Your task to perform on an android device: Go to Google maps Image 0: 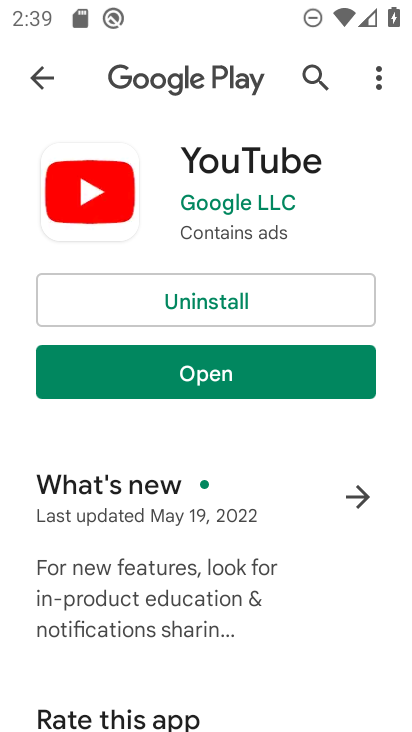
Step 0: press home button
Your task to perform on an android device: Go to Google maps Image 1: 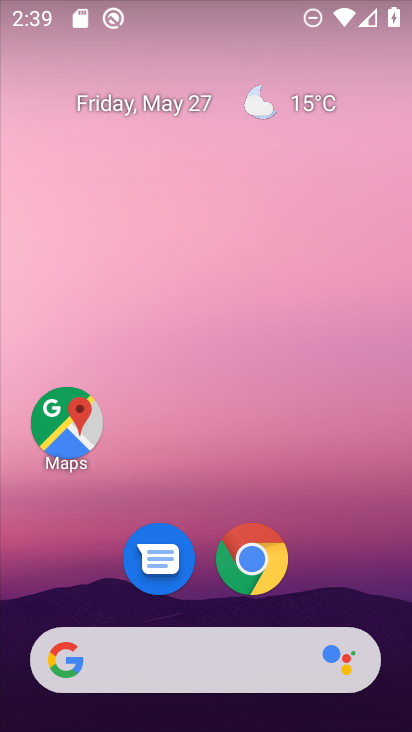
Step 1: drag from (258, 699) to (245, 59)
Your task to perform on an android device: Go to Google maps Image 2: 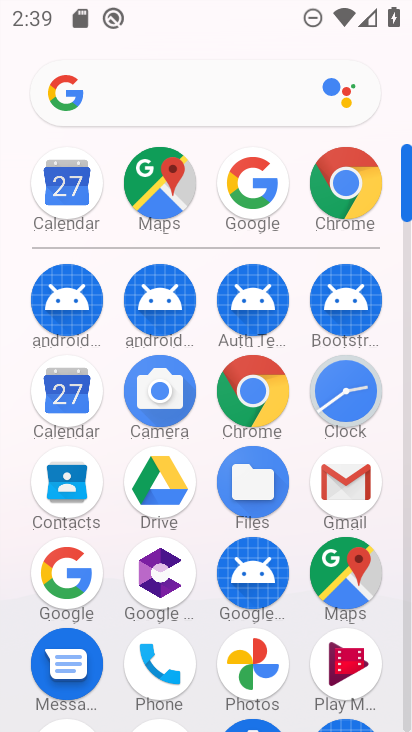
Step 2: click (356, 577)
Your task to perform on an android device: Go to Google maps Image 3: 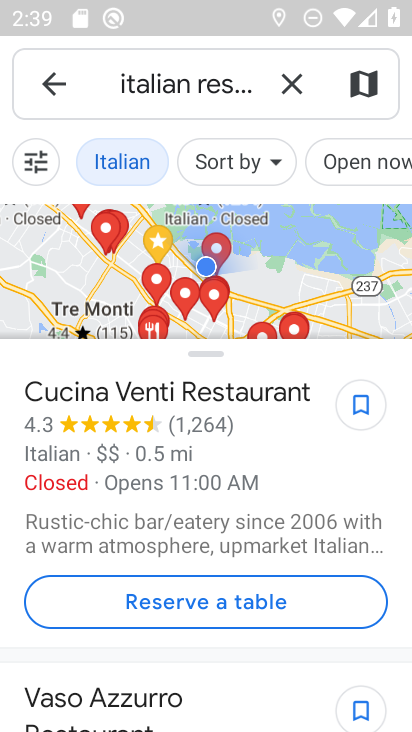
Step 3: task complete